Your task to perform on an android device: Do I have any events tomorrow? Image 0: 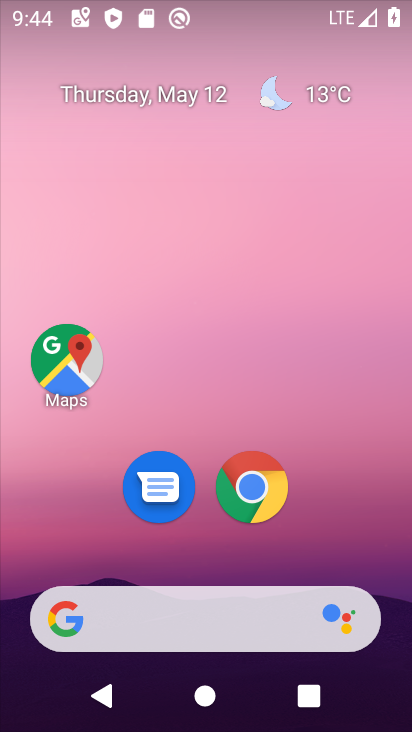
Step 0: drag from (389, 549) to (396, 19)
Your task to perform on an android device: Do I have any events tomorrow? Image 1: 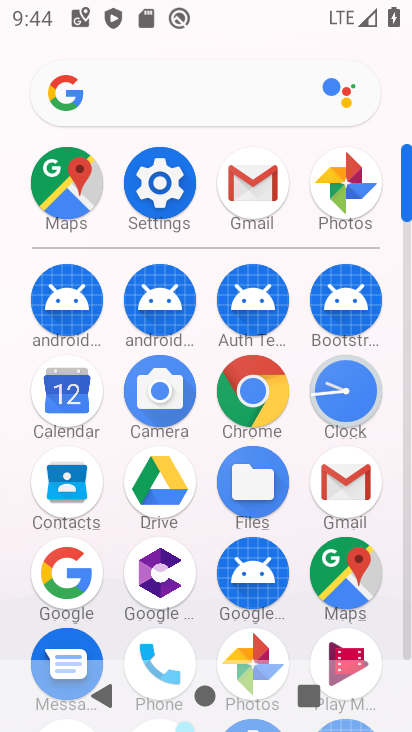
Step 1: click (67, 393)
Your task to perform on an android device: Do I have any events tomorrow? Image 2: 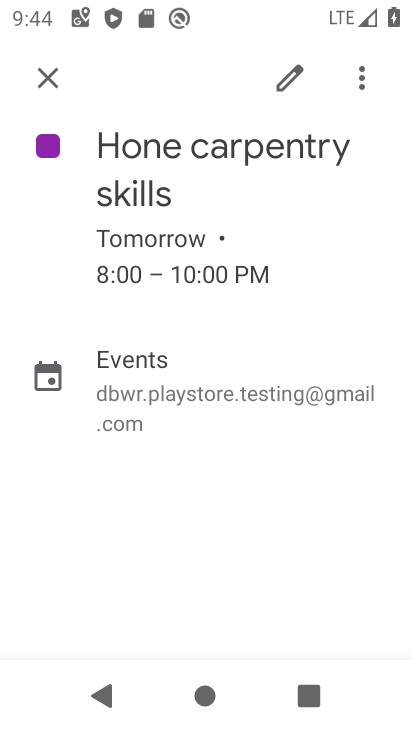
Step 2: click (50, 83)
Your task to perform on an android device: Do I have any events tomorrow? Image 3: 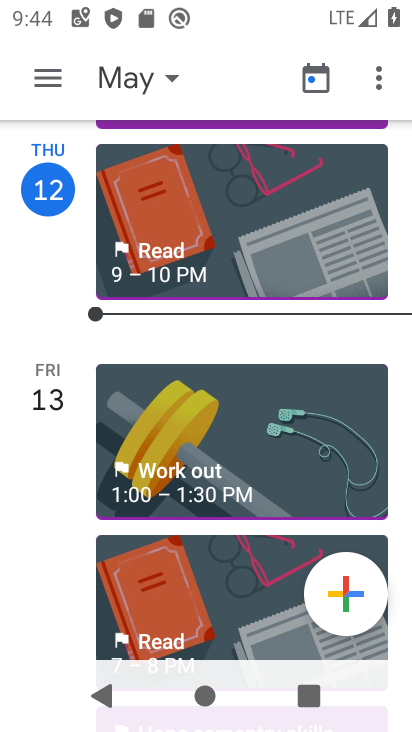
Step 3: drag from (233, 460) to (263, 177)
Your task to perform on an android device: Do I have any events tomorrow? Image 4: 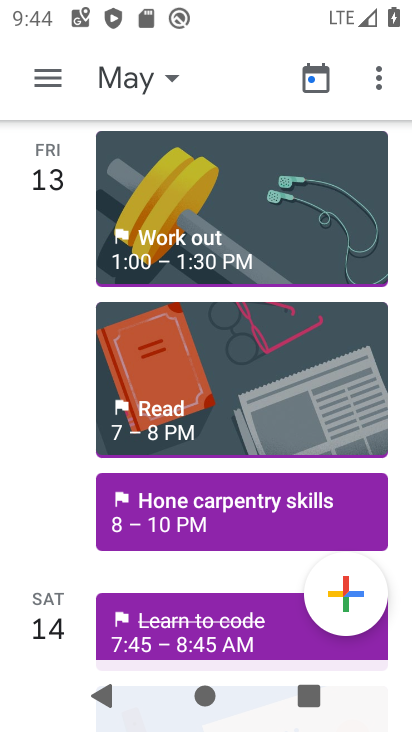
Step 4: click (185, 512)
Your task to perform on an android device: Do I have any events tomorrow? Image 5: 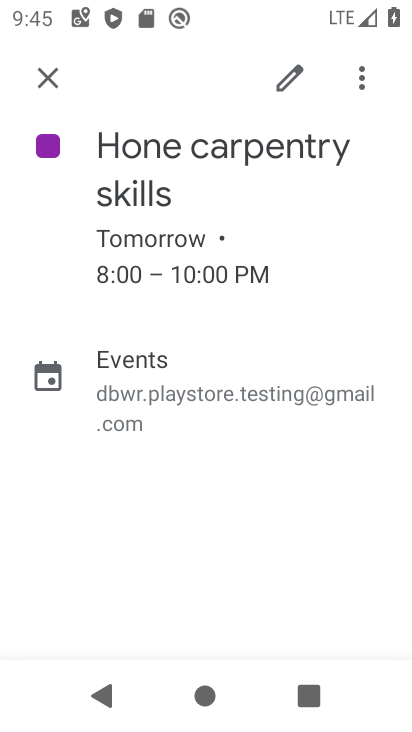
Step 5: task complete